Your task to perform on an android device: Turn off the flashlight Image 0: 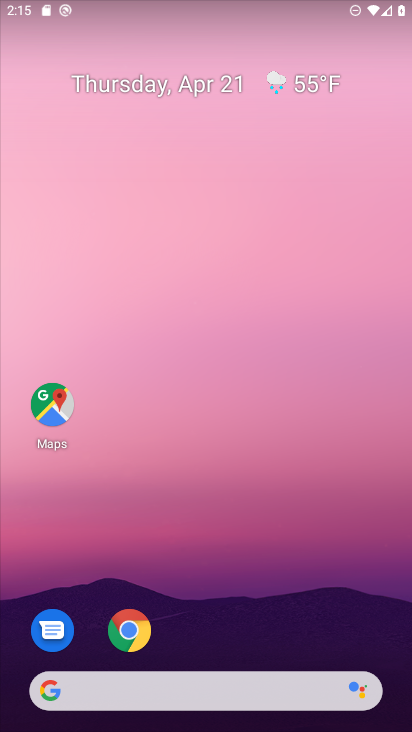
Step 0: drag from (218, 5) to (263, 658)
Your task to perform on an android device: Turn off the flashlight Image 1: 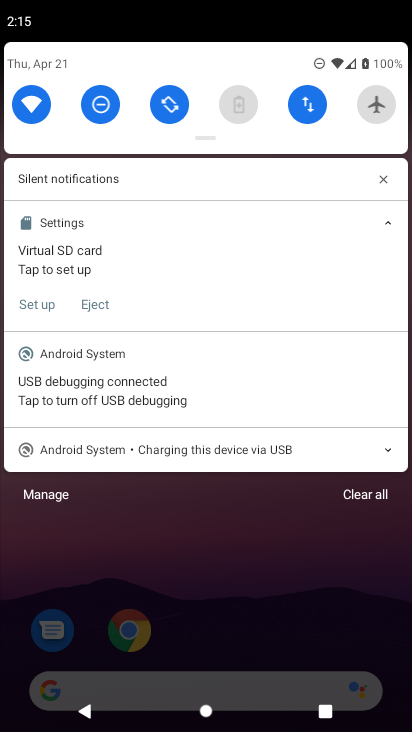
Step 1: drag from (229, 155) to (336, 502)
Your task to perform on an android device: Turn off the flashlight Image 2: 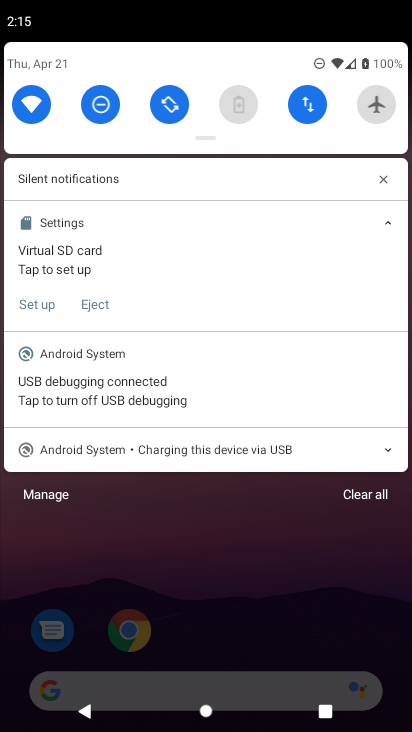
Step 2: drag from (201, 131) to (273, 491)
Your task to perform on an android device: Turn off the flashlight Image 3: 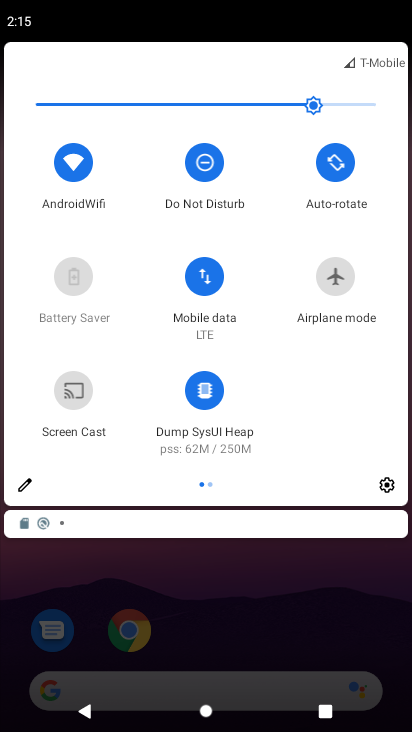
Step 3: click (28, 487)
Your task to perform on an android device: Turn off the flashlight Image 4: 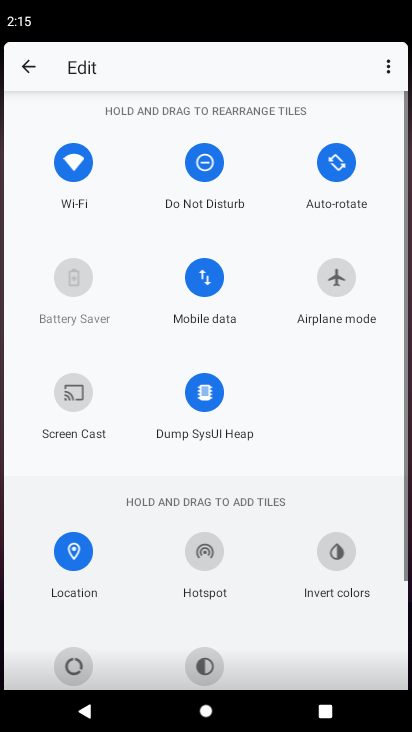
Step 4: task complete